Your task to perform on an android device: Open Yahoo.com Image 0: 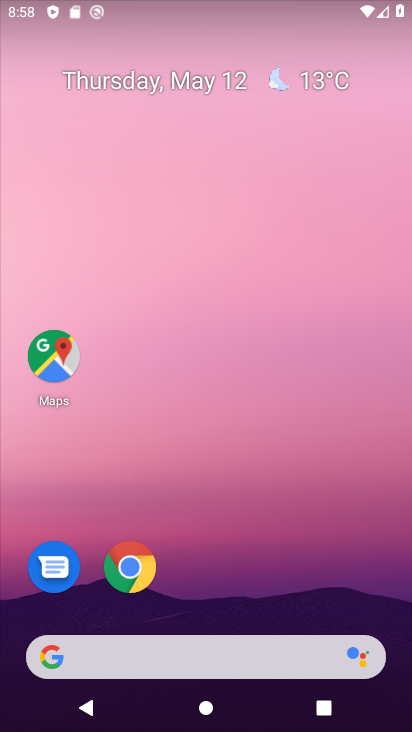
Step 0: drag from (216, 618) to (216, 74)
Your task to perform on an android device: Open Yahoo.com Image 1: 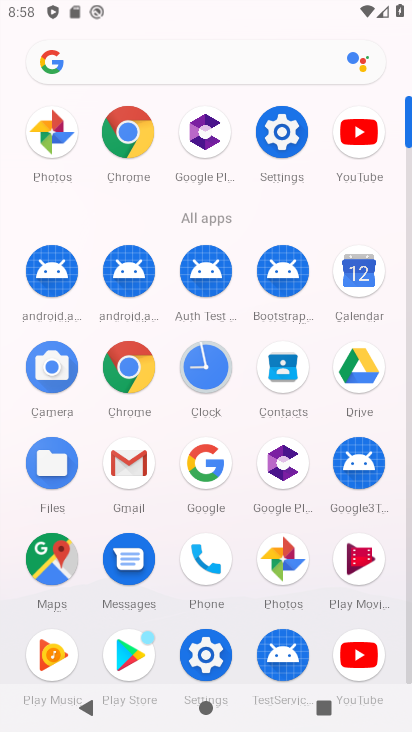
Step 1: click (128, 126)
Your task to perform on an android device: Open Yahoo.com Image 2: 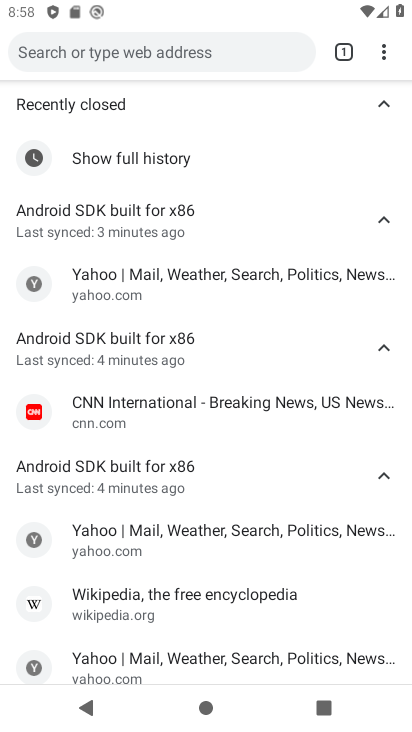
Step 2: click (344, 52)
Your task to perform on an android device: Open Yahoo.com Image 3: 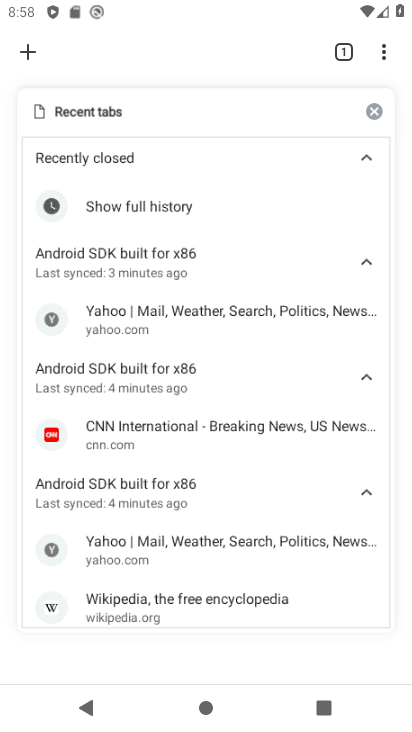
Step 3: click (373, 107)
Your task to perform on an android device: Open Yahoo.com Image 4: 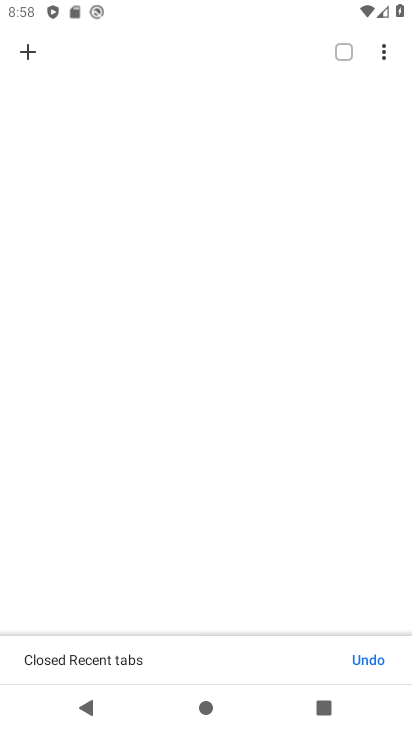
Step 4: click (33, 56)
Your task to perform on an android device: Open Yahoo.com Image 5: 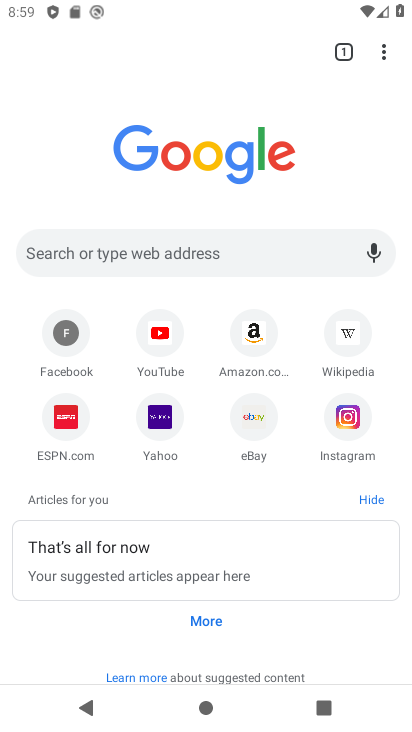
Step 5: click (164, 418)
Your task to perform on an android device: Open Yahoo.com Image 6: 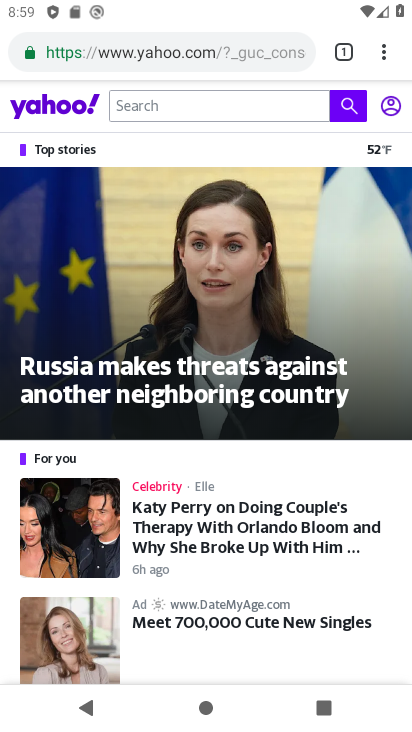
Step 6: task complete